Your task to perform on an android device: turn off location history Image 0: 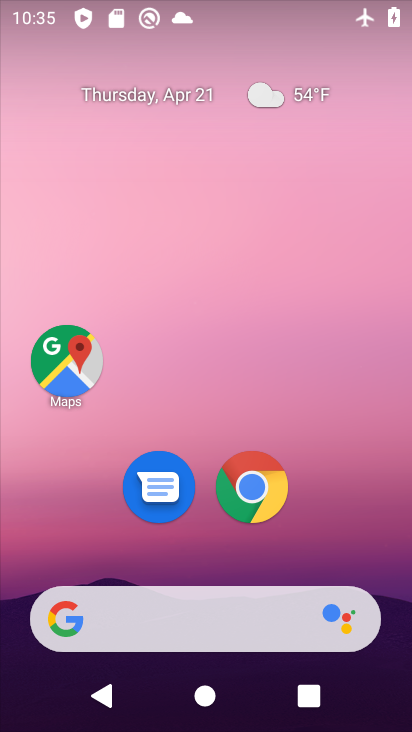
Step 0: drag from (355, 508) to (355, 158)
Your task to perform on an android device: turn off location history Image 1: 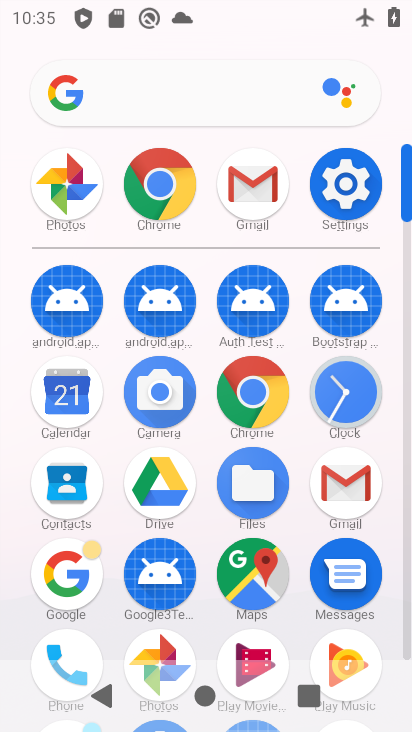
Step 1: click (351, 188)
Your task to perform on an android device: turn off location history Image 2: 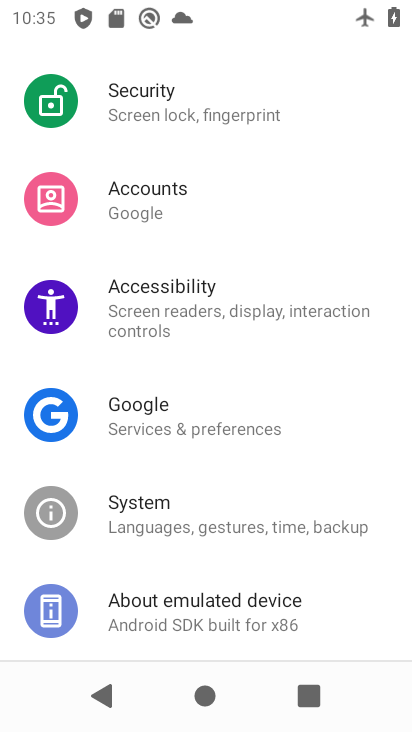
Step 2: drag from (324, 141) to (288, 430)
Your task to perform on an android device: turn off location history Image 3: 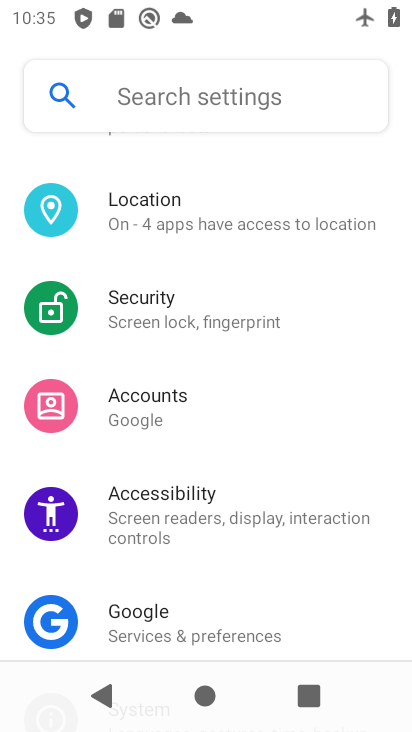
Step 3: click (255, 213)
Your task to perform on an android device: turn off location history Image 4: 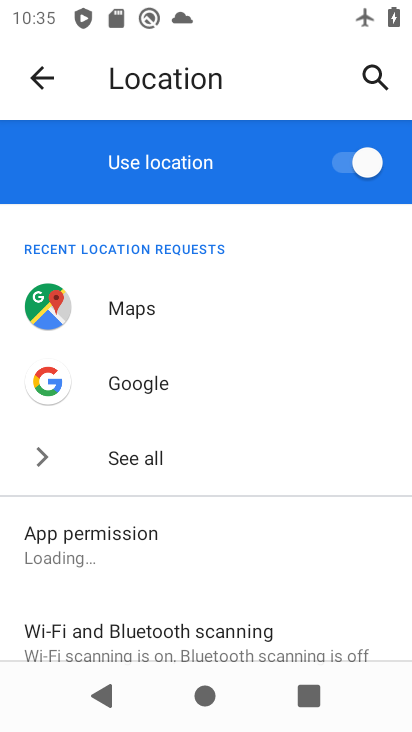
Step 4: drag from (234, 569) to (269, 294)
Your task to perform on an android device: turn off location history Image 5: 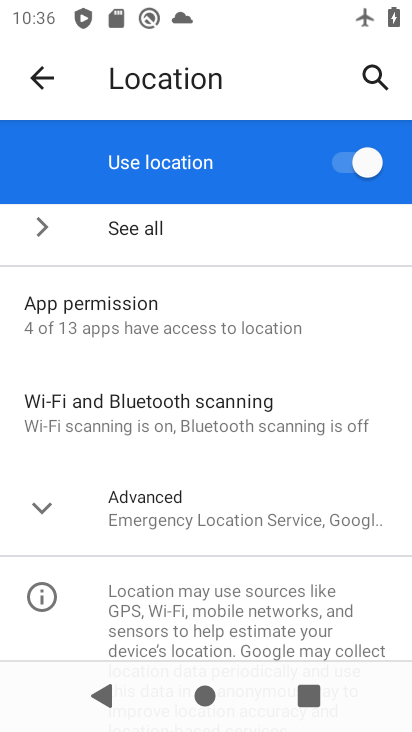
Step 5: click (258, 497)
Your task to perform on an android device: turn off location history Image 6: 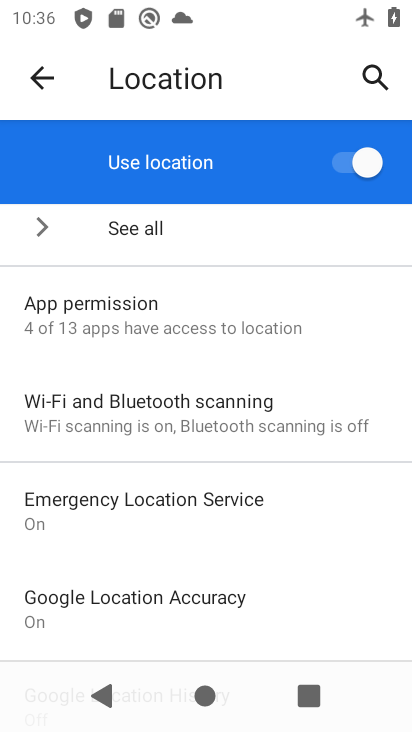
Step 6: task complete